Your task to perform on an android device: Search for Italian restaurants on Maps Image 0: 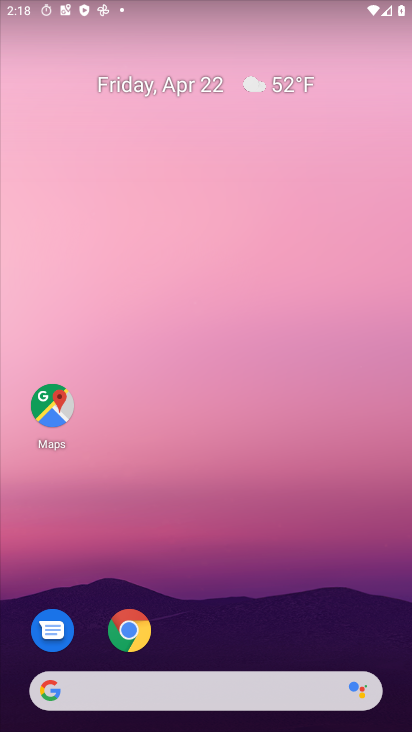
Step 0: click (53, 407)
Your task to perform on an android device: Search for Italian restaurants on Maps Image 1: 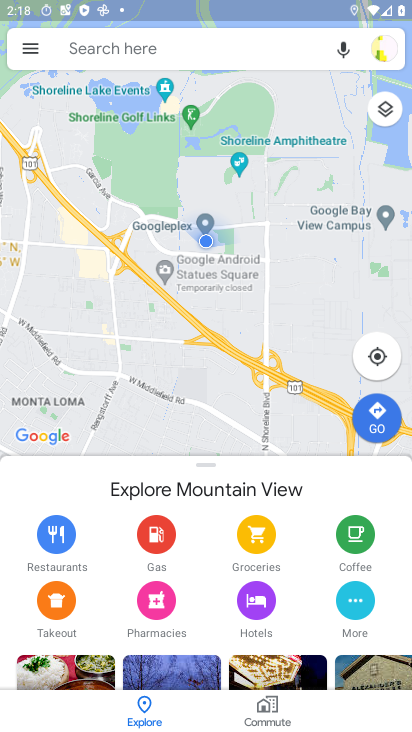
Step 1: click (87, 40)
Your task to perform on an android device: Search for Italian restaurants on Maps Image 2: 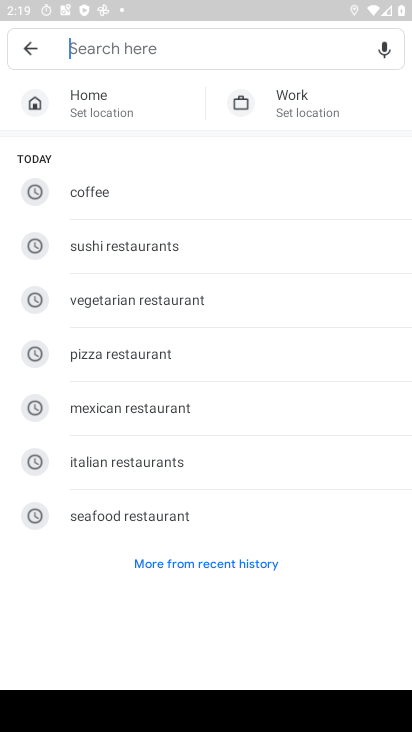
Step 2: type "Italian restaurants"
Your task to perform on an android device: Search for Italian restaurants on Maps Image 3: 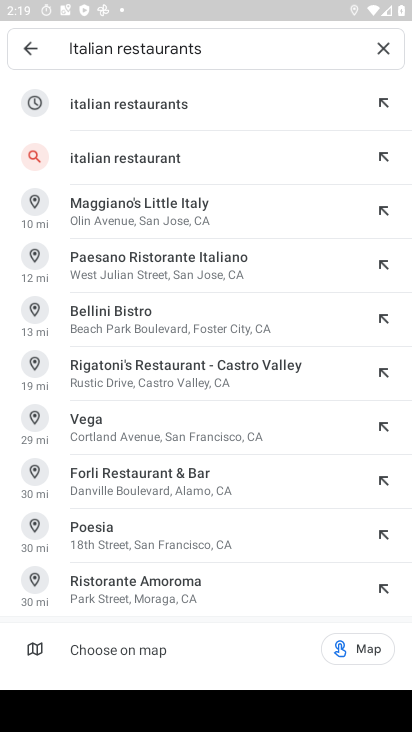
Step 3: click (105, 100)
Your task to perform on an android device: Search for Italian restaurants on Maps Image 4: 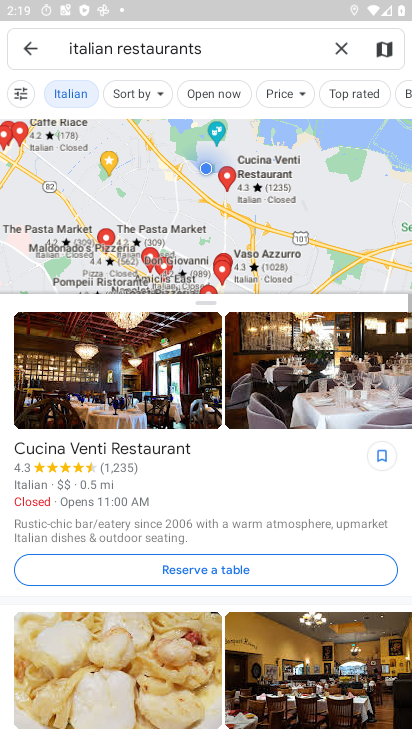
Step 4: task complete